Your task to perform on an android device: delete browsing data in the chrome app Image 0: 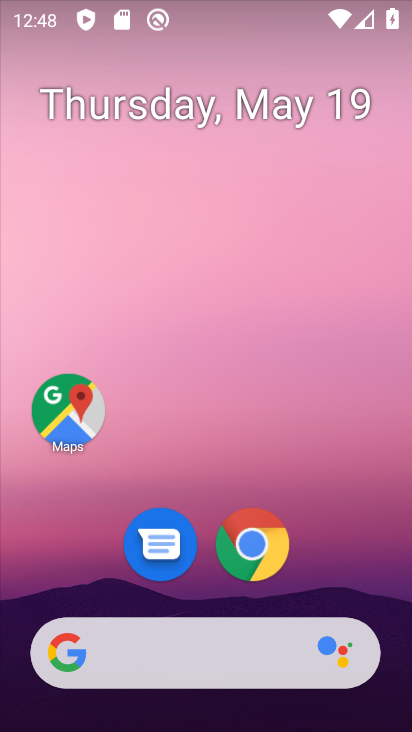
Step 0: press home button
Your task to perform on an android device: delete browsing data in the chrome app Image 1: 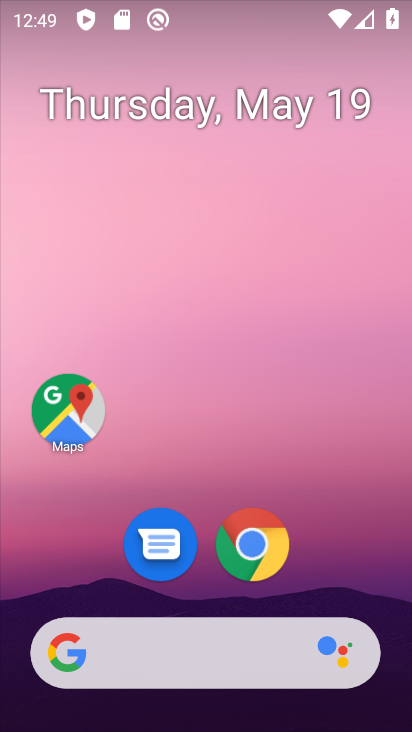
Step 1: click (275, 534)
Your task to perform on an android device: delete browsing data in the chrome app Image 2: 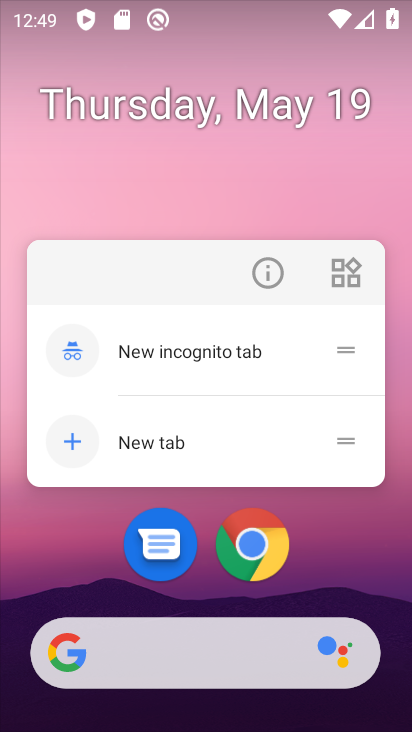
Step 2: click (242, 572)
Your task to perform on an android device: delete browsing data in the chrome app Image 3: 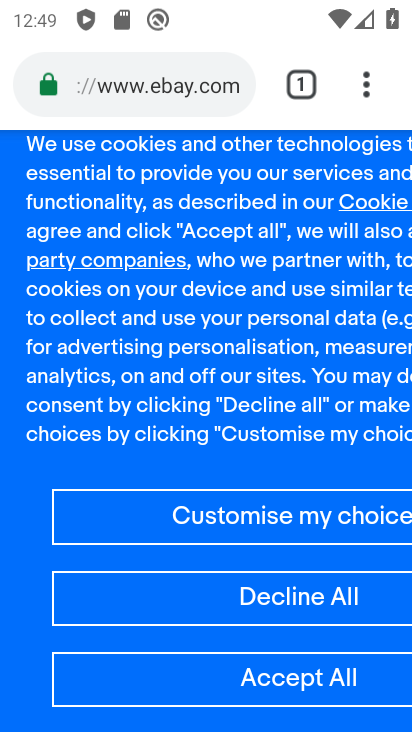
Step 3: click (374, 83)
Your task to perform on an android device: delete browsing data in the chrome app Image 4: 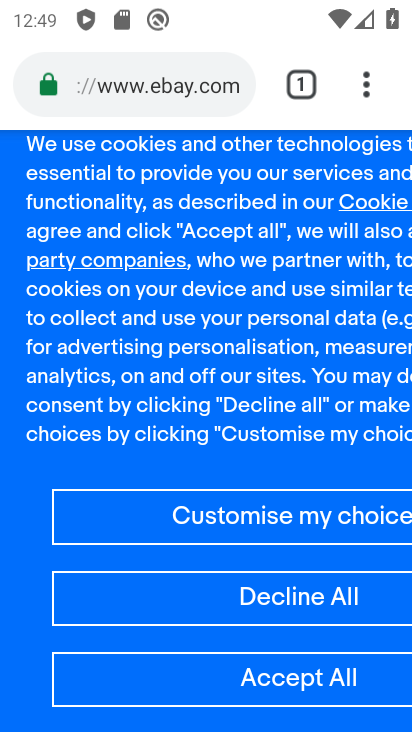
Step 4: drag from (375, 77) to (92, 584)
Your task to perform on an android device: delete browsing data in the chrome app Image 5: 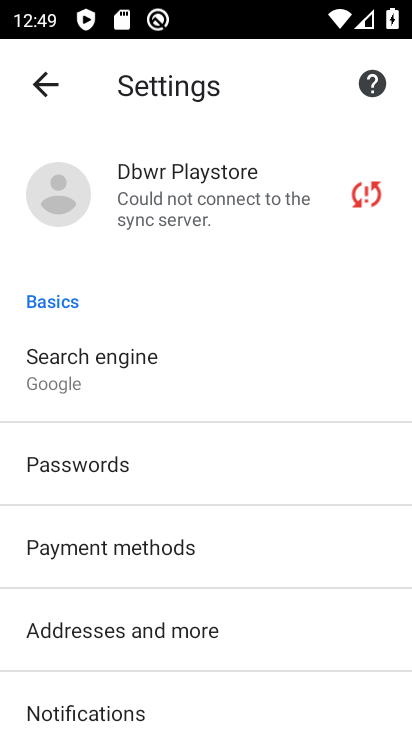
Step 5: drag from (77, 584) to (202, 288)
Your task to perform on an android device: delete browsing data in the chrome app Image 6: 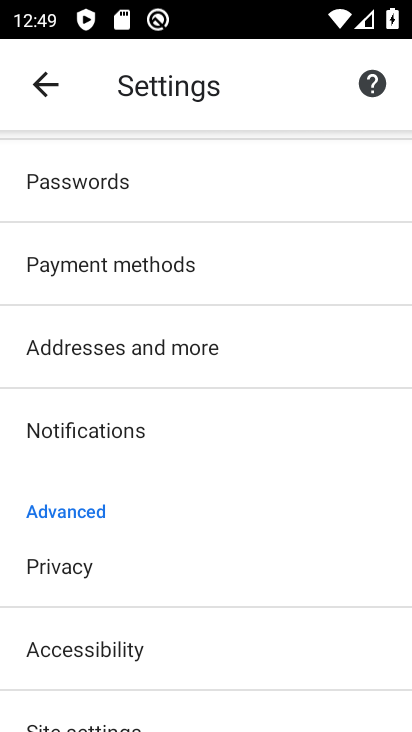
Step 6: drag from (208, 634) to (207, 548)
Your task to perform on an android device: delete browsing data in the chrome app Image 7: 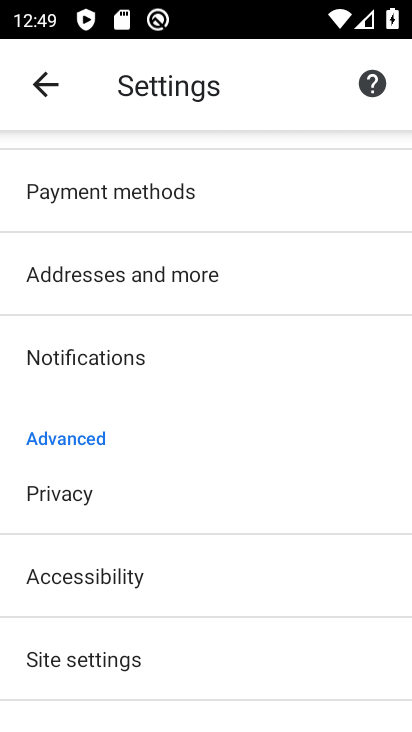
Step 7: click (55, 487)
Your task to perform on an android device: delete browsing data in the chrome app Image 8: 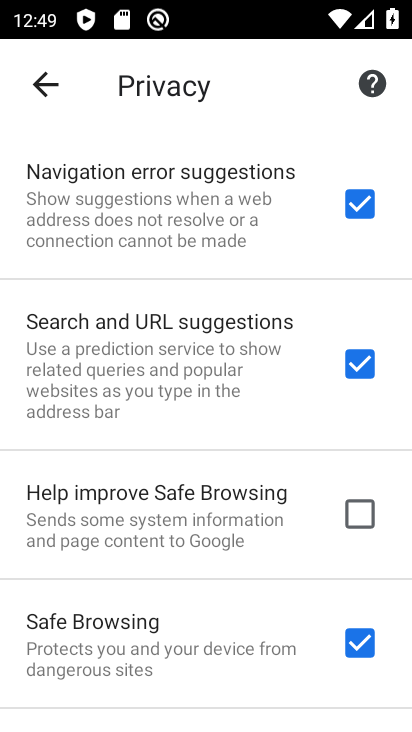
Step 8: drag from (134, 603) to (206, 351)
Your task to perform on an android device: delete browsing data in the chrome app Image 9: 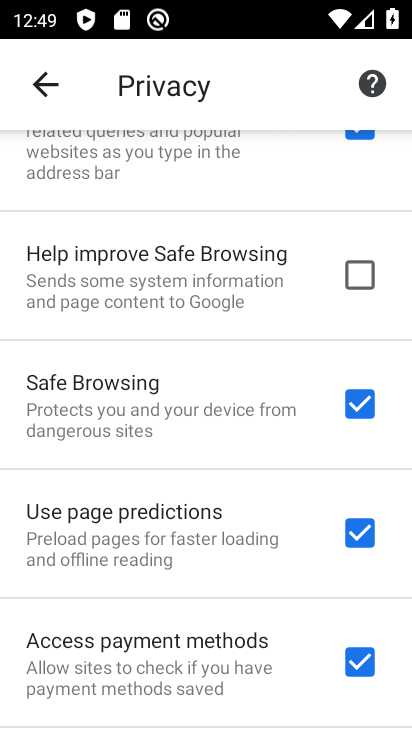
Step 9: drag from (157, 603) to (161, 380)
Your task to perform on an android device: delete browsing data in the chrome app Image 10: 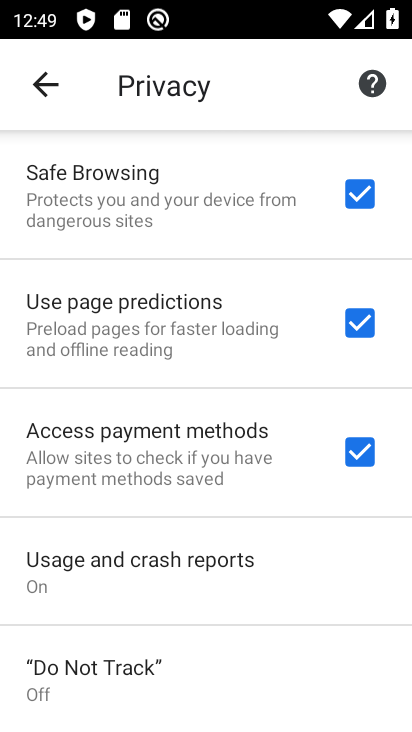
Step 10: drag from (153, 568) to (138, 343)
Your task to perform on an android device: delete browsing data in the chrome app Image 11: 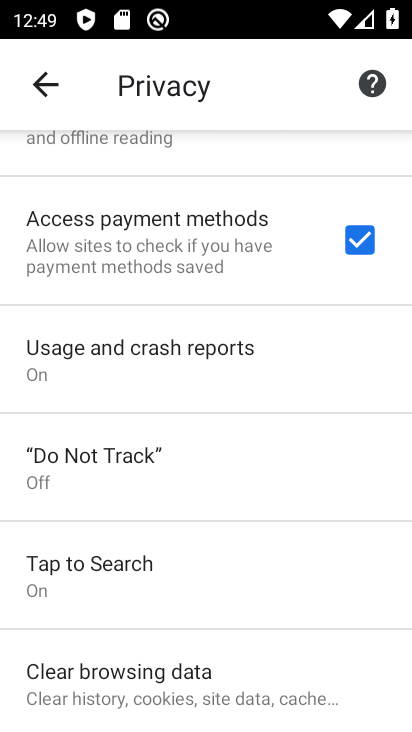
Step 11: drag from (188, 507) to (193, 339)
Your task to perform on an android device: delete browsing data in the chrome app Image 12: 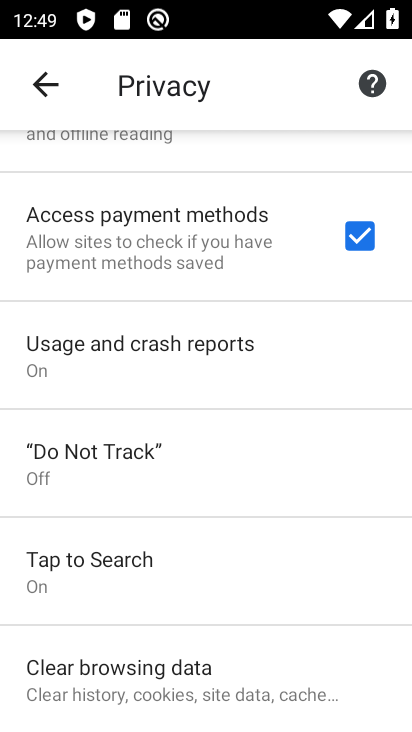
Step 12: click (100, 663)
Your task to perform on an android device: delete browsing data in the chrome app Image 13: 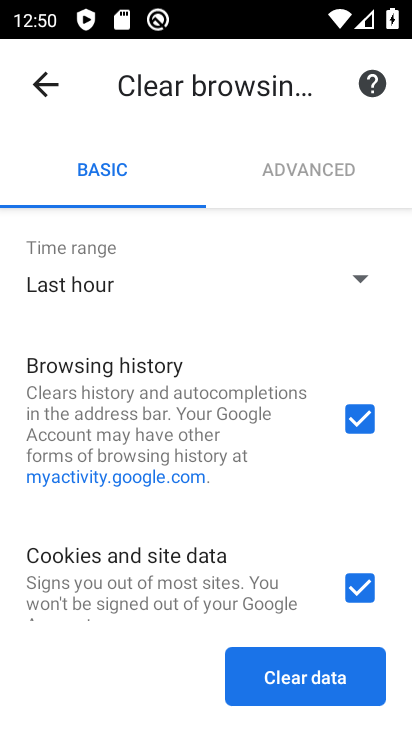
Step 13: click (291, 681)
Your task to perform on an android device: delete browsing data in the chrome app Image 14: 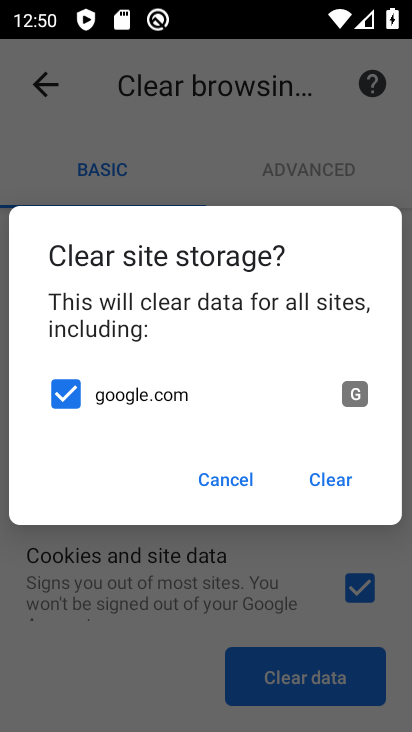
Step 14: click (345, 478)
Your task to perform on an android device: delete browsing data in the chrome app Image 15: 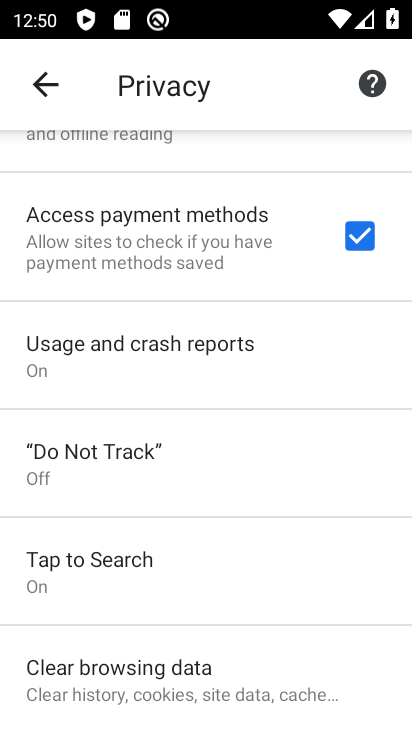
Step 15: task complete